Your task to perform on an android device: toggle notifications settings in the gmail app Image 0: 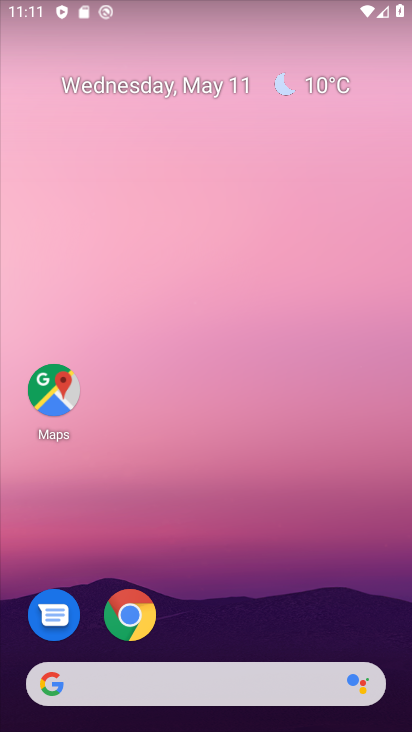
Step 0: drag from (270, 595) to (262, 85)
Your task to perform on an android device: toggle notifications settings in the gmail app Image 1: 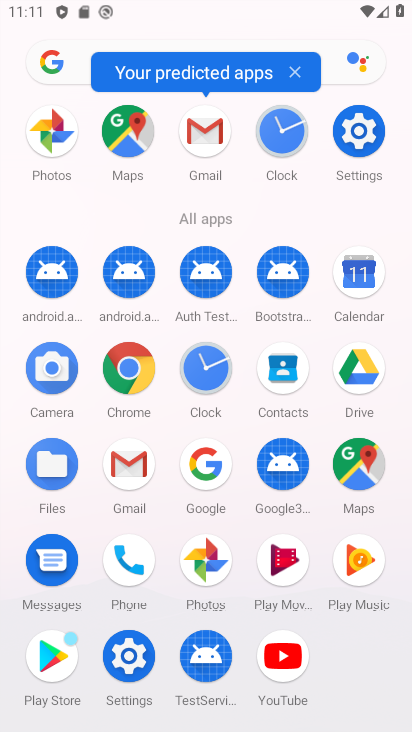
Step 1: click (201, 131)
Your task to perform on an android device: toggle notifications settings in the gmail app Image 2: 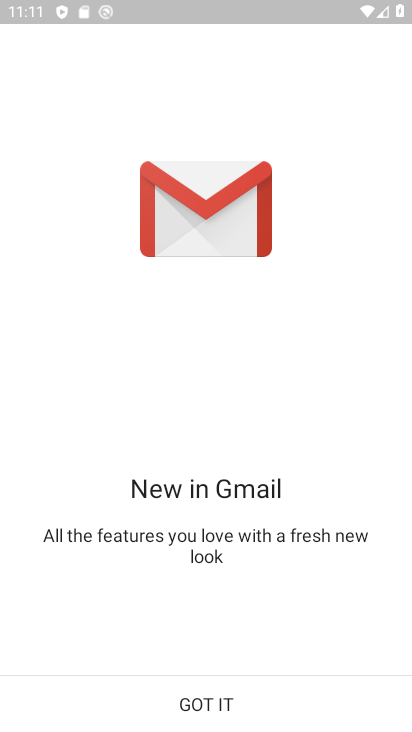
Step 2: click (221, 696)
Your task to perform on an android device: toggle notifications settings in the gmail app Image 3: 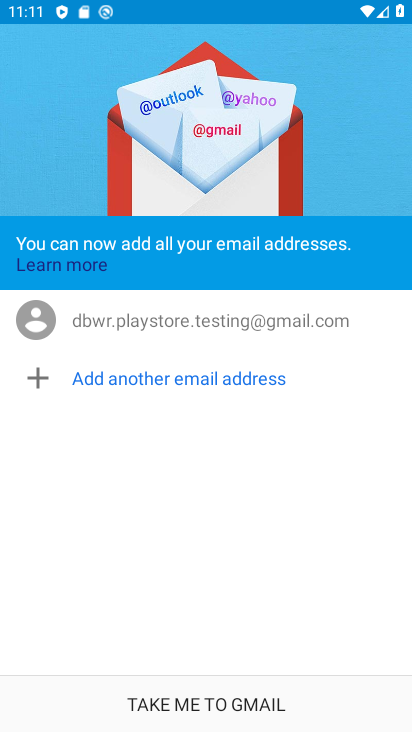
Step 3: click (188, 704)
Your task to perform on an android device: toggle notifications settings in the gmail app Image 4: 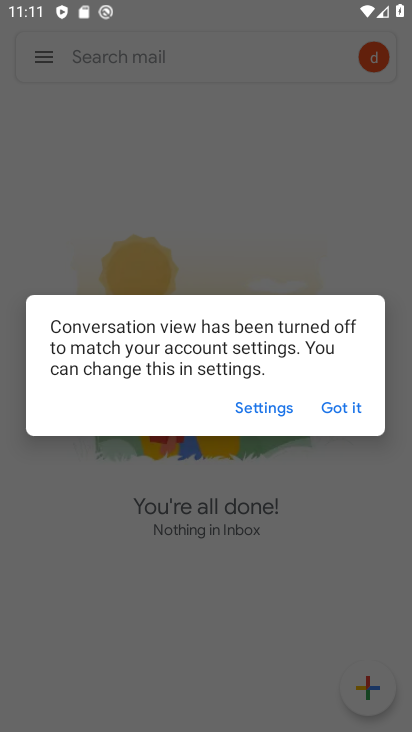
Step 4: click (336, 411)
Your task to perform on an android device: toggle notifications settings in the gmail app Image 5: 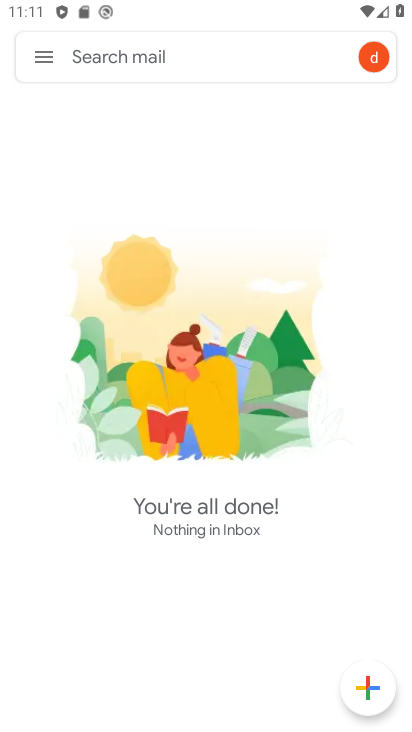
Step 5: click (42, 60)
Your task to perform on an android device: toggle notifications settings in the gmail app Image 6: 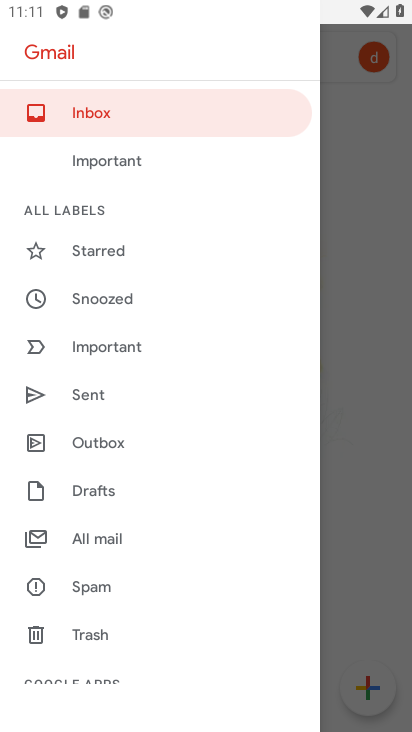
Step 6: drag from (115, 501) to (169, 395)
Your task to perform on an android device: toggle notifications settings in the gmail app Image 7: 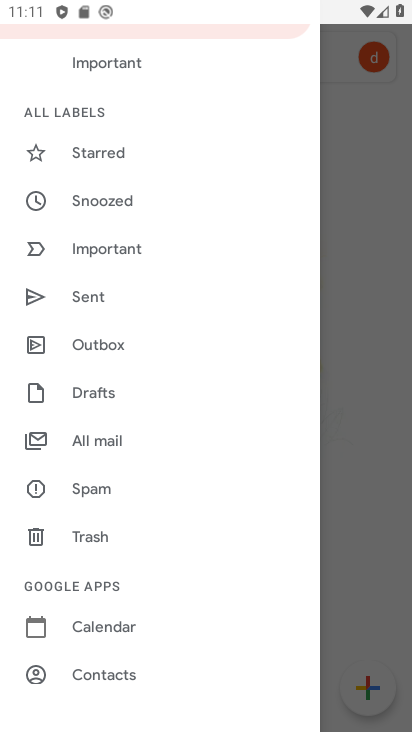
Step 7: drag from (114, 536) to (169, 439)
Your task to perform on an android device: toggle notifications settings in the gmail app Image 8: 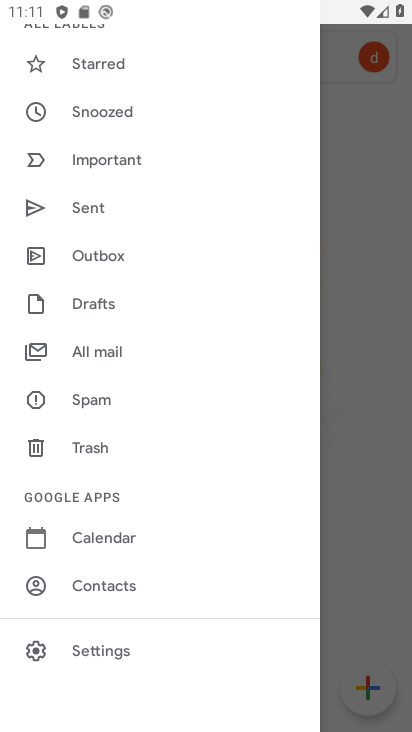
Step 8: drag from (97, 559) to (142, 453)
Your task to perform on an android device: toggle notifications settings in the gmail app Image 9: 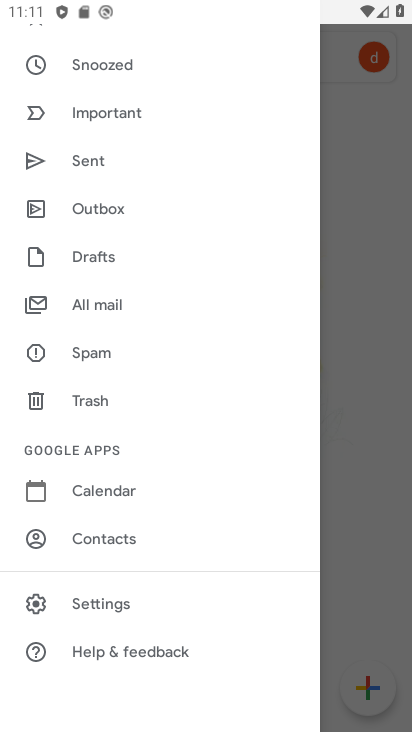
Step 9: click (94, 606)
Your task to perform on an android device: toggle notifications settings in the gmail app Image 10: 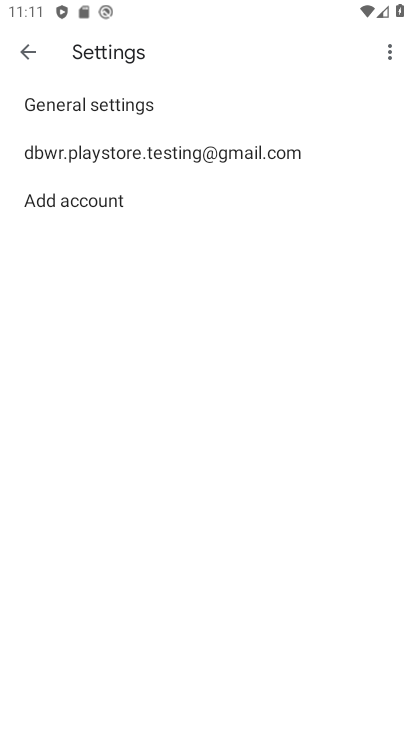
Step 10: click (71, 150)
Your task to perform on an android device: toggle notifications settings in the gmail app Image 11: 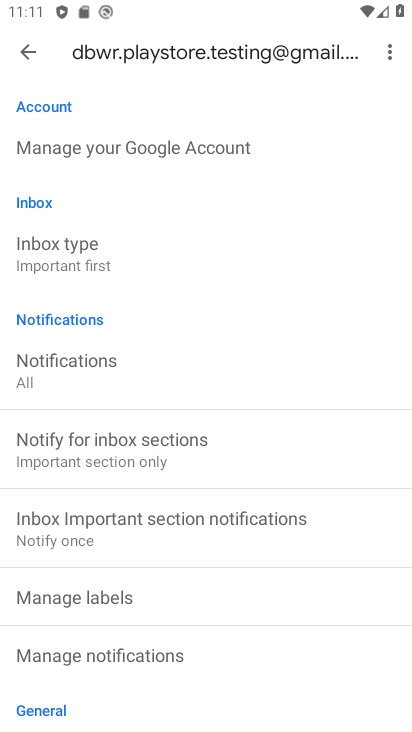
Step 11: drag from (127, 525) to (188, 381)
Your task to perform on an android device: toggle notifications settings in the gmail app Image 12: 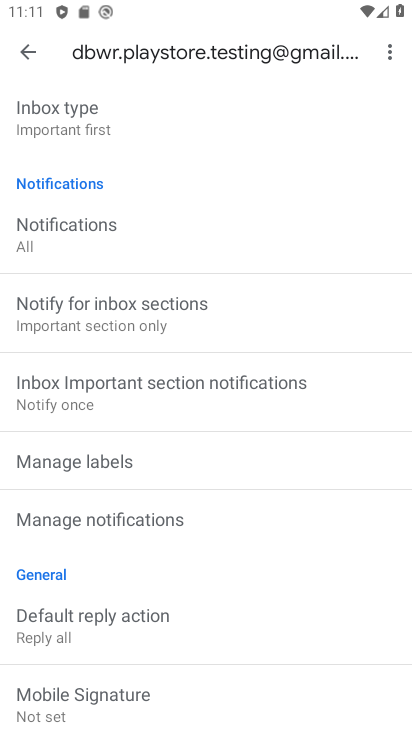
Step 12: click (130, 524)
Your task to perform on an android device: toggle notifications settings in the gmail app Image 13: 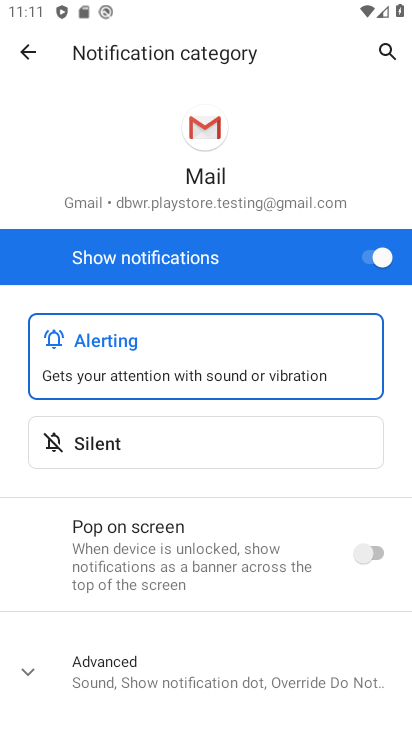
Step 13: click (390, 254)
Your task to perform on an android device: toggle notifications settings in the gmail app Image 14: 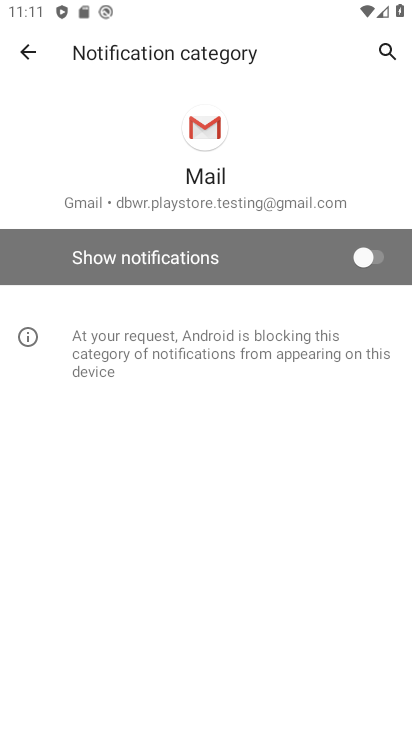
Step 14: task complete